Your task to perform on an android device: allow cookies in the chrome app Image 0: 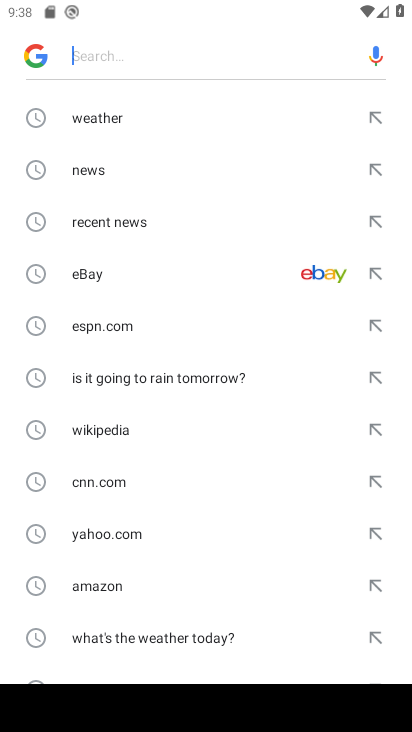
Step 0: press home button
Your task to perform on an android device: allow cookies in the chrome app Image 1: 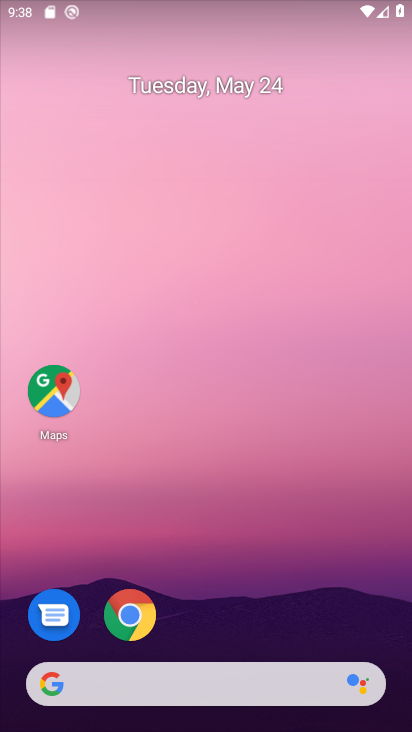
Step 1: drag from (393, 633) to (370, 252)
Your task to perform on an android device: allow cookies in the chrome app Image 2: 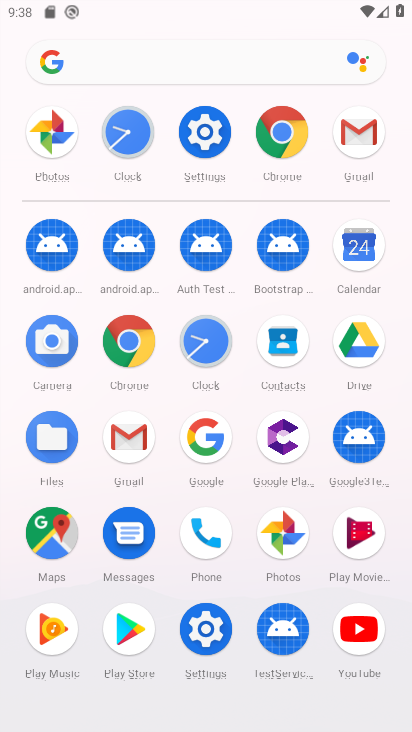
Step 2: click (142, 361)
Your task to perform on an android device: allow cookies in the chrome app Image 3: 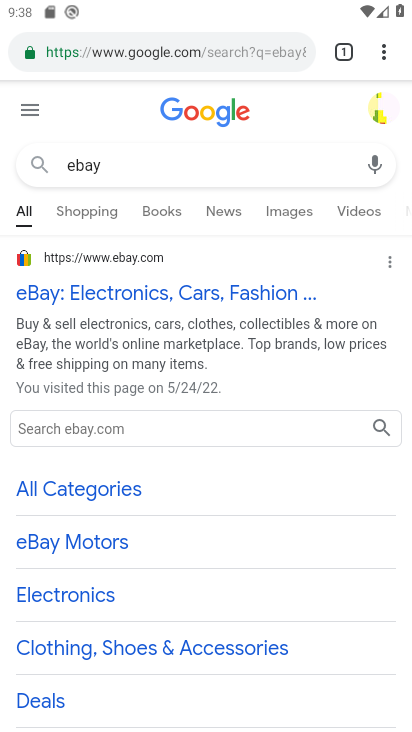
Step 3: click (383, 59)
Your task to perform on an android device: allow cookies in the chrome app Image 4: 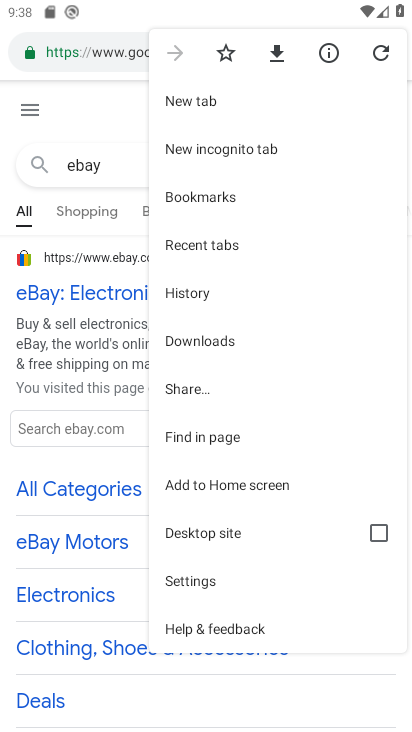
Step 4: click (219, 586)
Your task to perform on an android device: allow cookies in the chrome app Image 5: 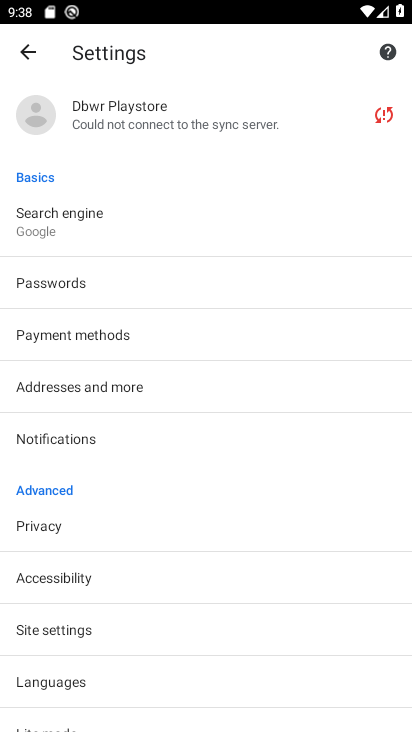
Step 5: drag from (238, 636) to (246, 524)
Your task to perform on an android device: allow cookies in the chrome app Image 6: 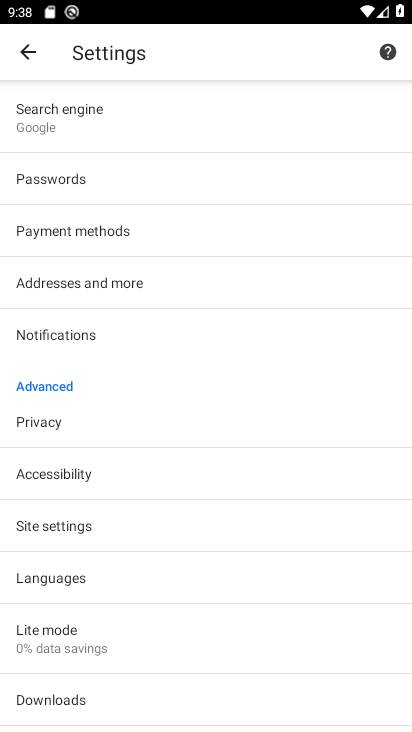
Step 6: drag from (266, 600) to (266, 500)
Your task to perform on an android device: allow cookies in the chrome app Image 7: 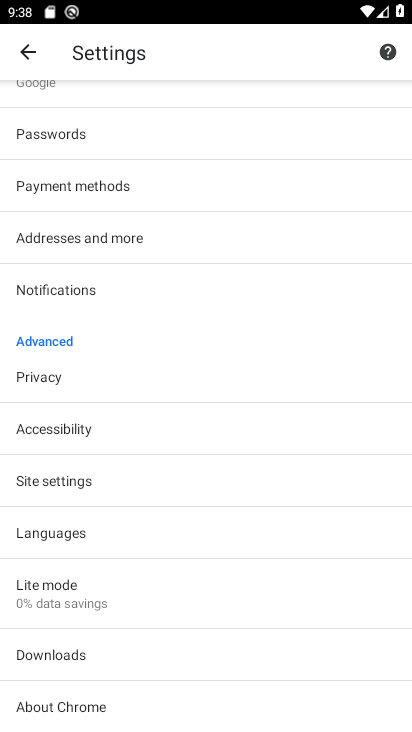
Step 7: click (272, 483)
Your task to perform on an android device: allow cookies in the chrome app Image 8: 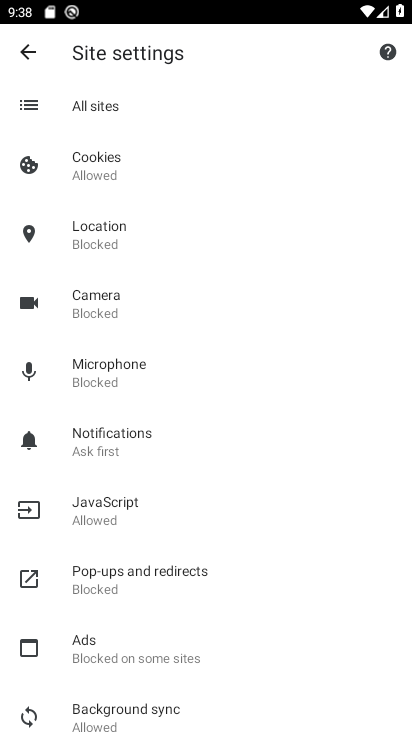
Step 8: drag from (328, 611) to (319, 487)
Your task to perform on an android device: allow cookies in the chrome app Image 9: 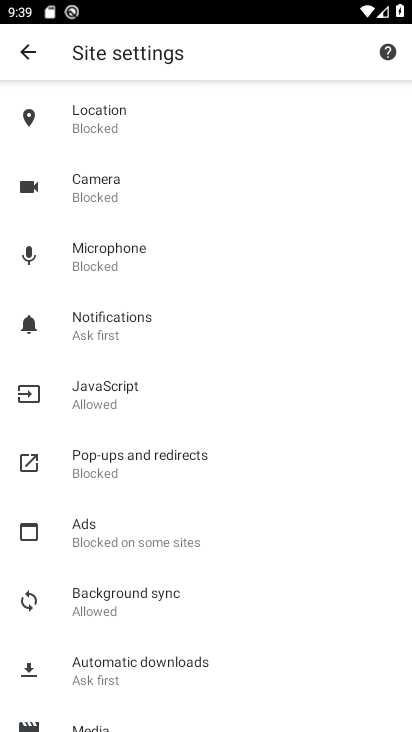
Step 9: drag from (326, 621) to (325, 526)
Your task to perform on an android device: allow cookies in the chrome app Image 10: 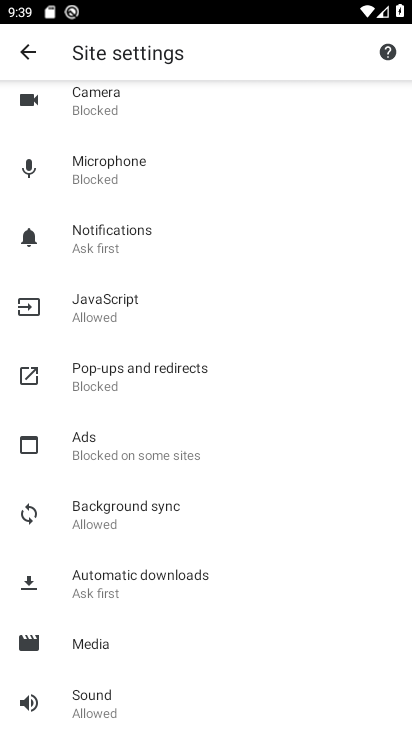
Step 10: drag from (337, 365) to (331, 492)
Your task to perform on an android device: allow cookies in the chrome app Image 11: 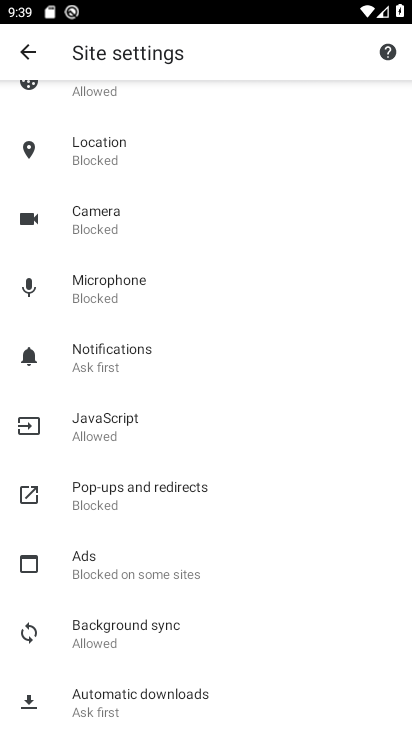
Step 11: drag from (314, 310) to (314, 469)
Your task to perform on an android device: allow cookies in the chrome app Image 12: 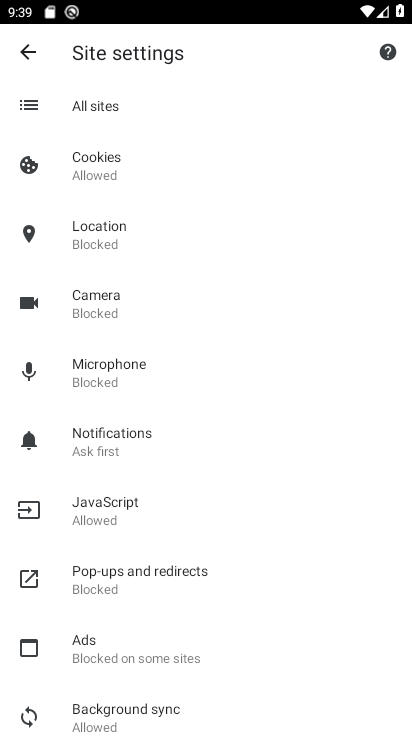
Step 12: click (162, 186)
Your task to perform on an android device: allow cookies in the chrome app Image 13: 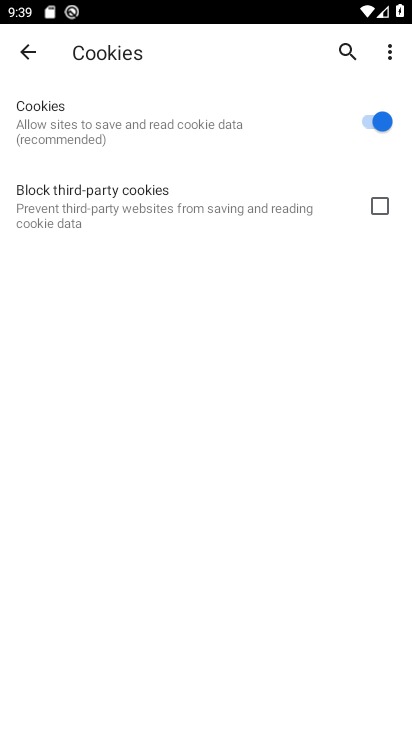
Step 13: task complete